Your task to perform on an android device: set the stopwatch Image 0: 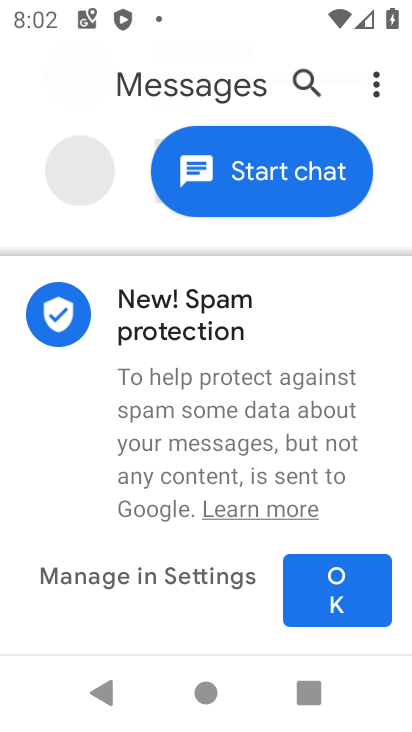
Step 0: press home button
Your task to perform on an android device: set the stopwatch Image 1: 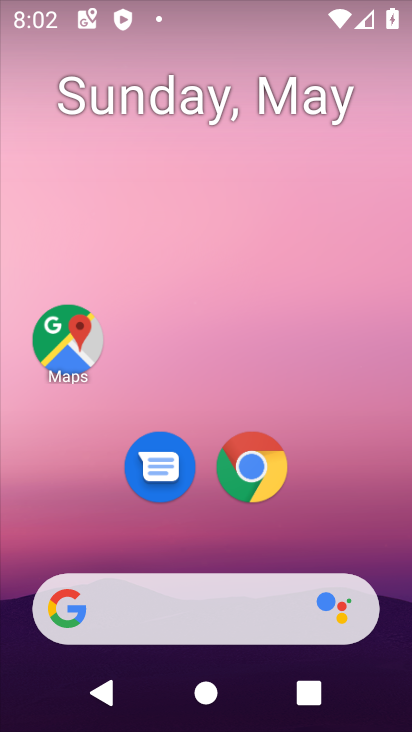
Step 1: drag from (53, 517) to (251, 103)
Your task to perform on an android device: set the stopwatch Image 2: 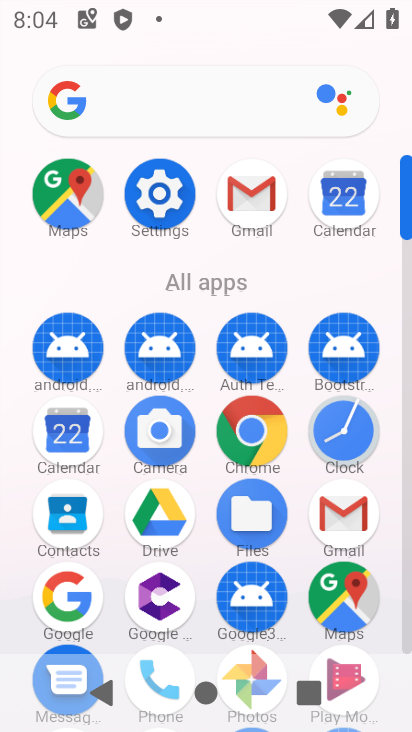
Step 2: click (325, 433)
Your task to perform on an android device: set the stopwatch Image 3: 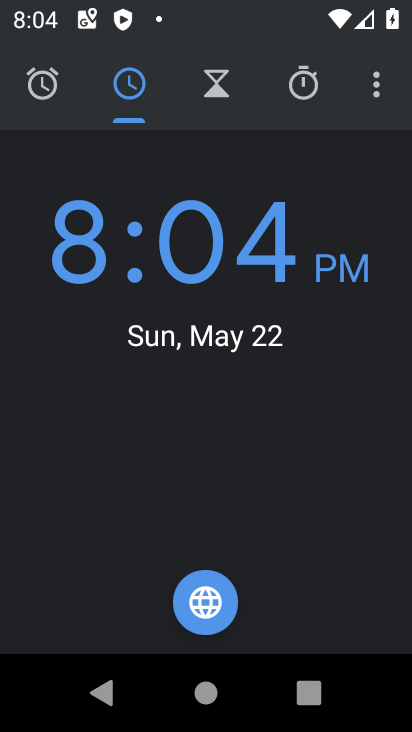
Step 3: click (303, 97)
Your task to perform on an android device: set the stopwatch Image 4: 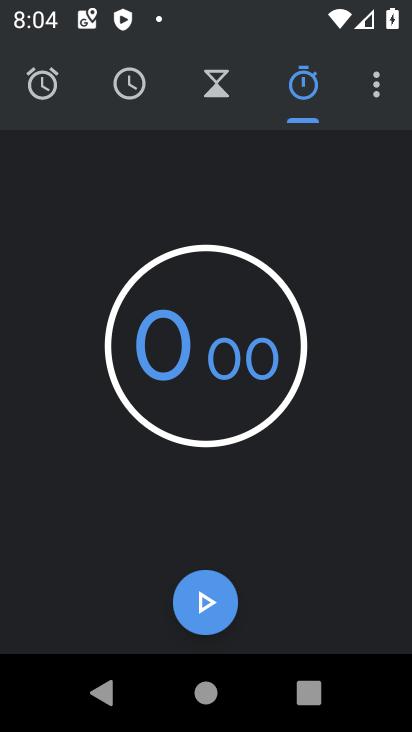
Step 4: click (211, 606)
Your task to perform on an android device: set the stopwatch Image 5: 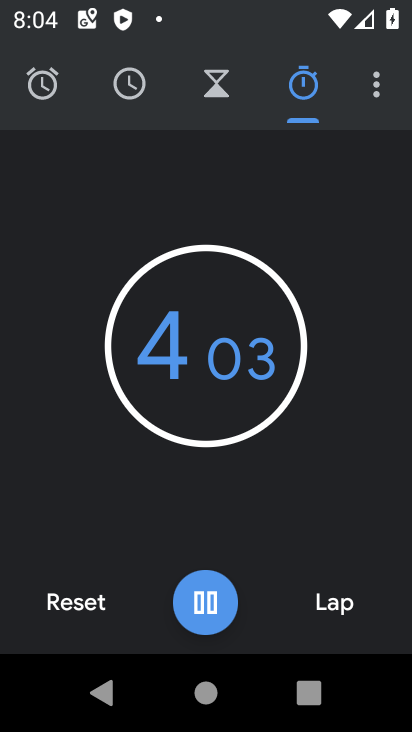
Step 5: task complete